Your task to perform on an android device: Go to Maps Image 0: 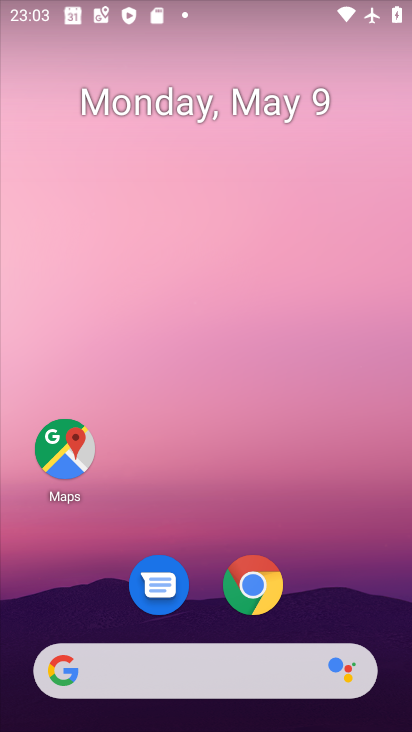
Step 0: click (72, 450)
Your task to perform on an android device: Go to Maps Image 1: 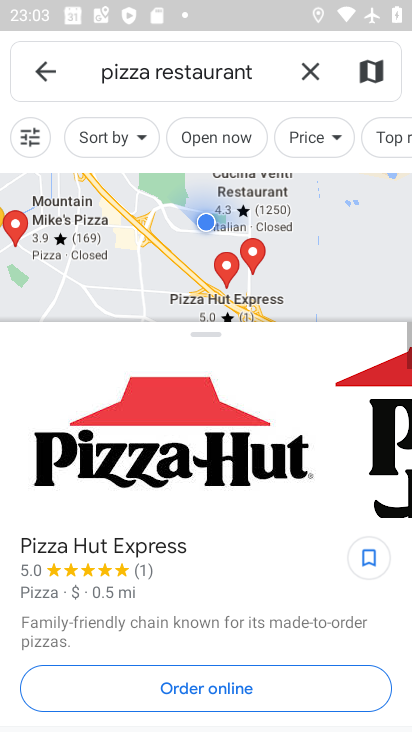
Step 1: click (306, 69)
Your task to perform on an android device: Go to Maps Image 2: 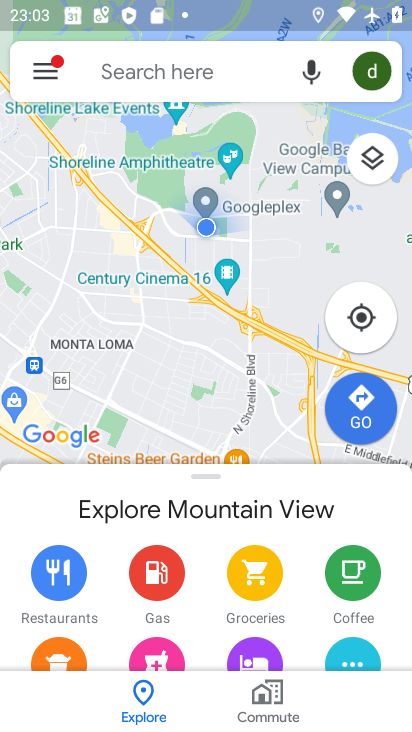
Step 2: task complete